Your task to perform on an android device: move a message to another label in the gmail app Image 0: 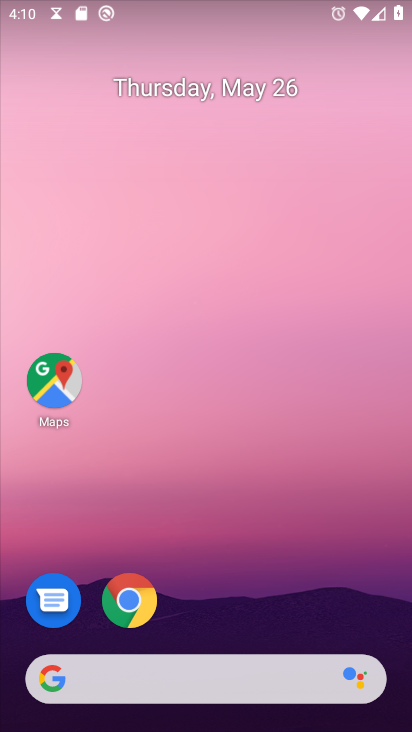
Step 0: click (144, 609)
Your task to perform on an android device: move a message to another label in the gmail app Image 1: 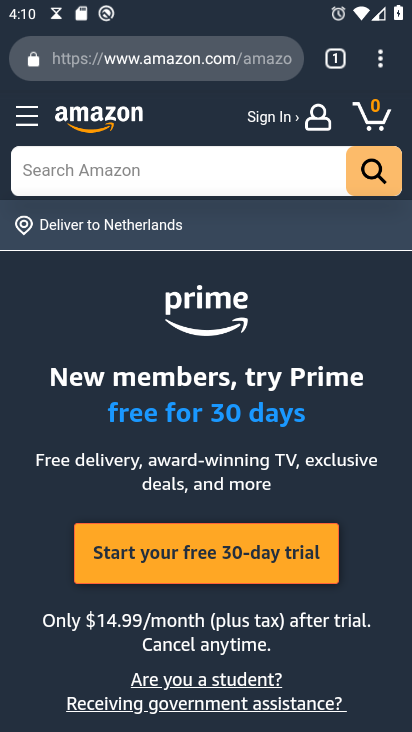
Step 1: press home button
Your task to perform on an android device: move a message to another label in the gmail app Image 2: 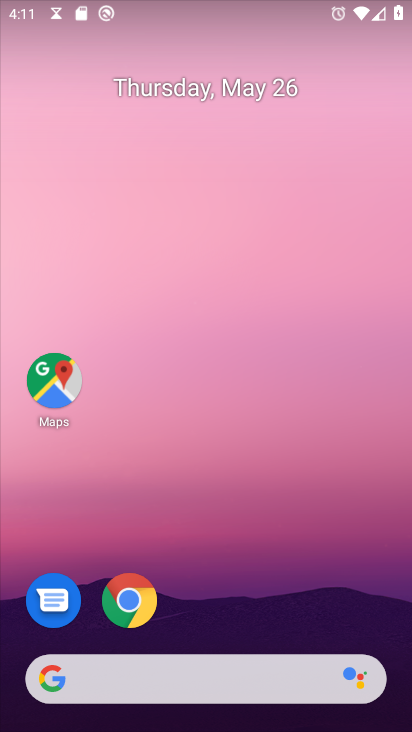
Step 2: drag from (221, 633) to (293, 240)
Your task to perform on an android device: move a message to another label in the gmail app Image 3: 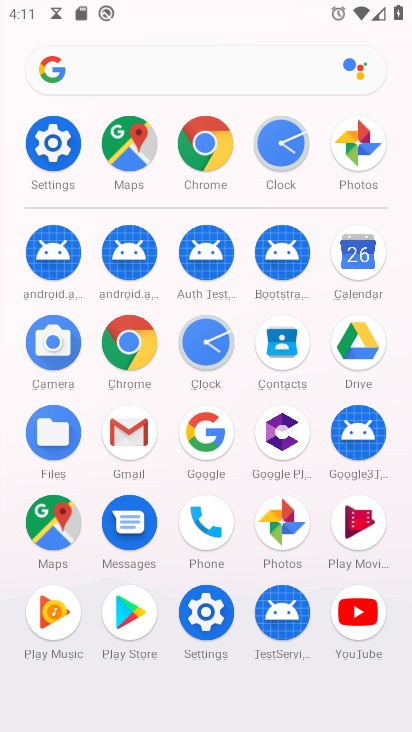
Step 3: click (131, 444)
Your task to perform on an android device: move a message to another label in the gmail app Image 4: 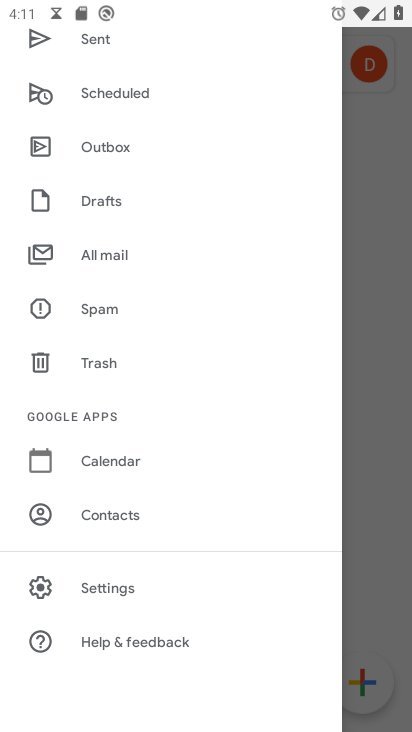
Step 4: click (105, 249)
Your task to perform on an android device: move a message to another label in the gmail app Image 5: 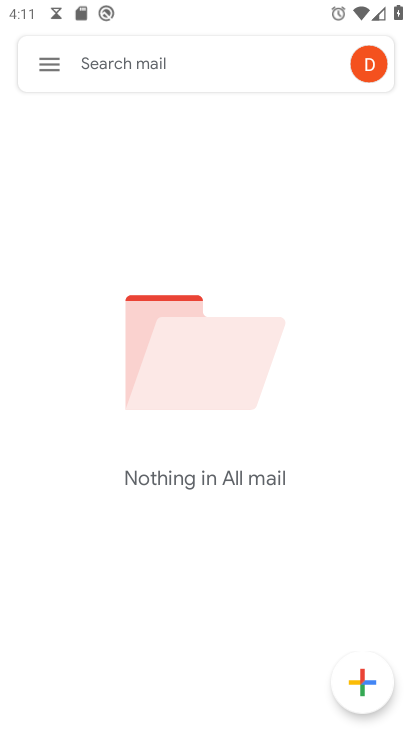
Step 5: task complete